Your task to perform on an android device: toggle javascript in the chrome app Image 0: 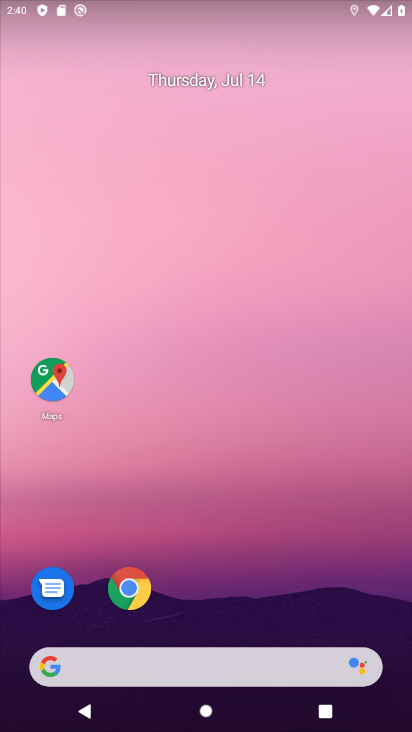
Step 0: drag from (224, 638) to (126, 18)
Your task to perform on an android device: toggle javascript in the chrome app Image 1: 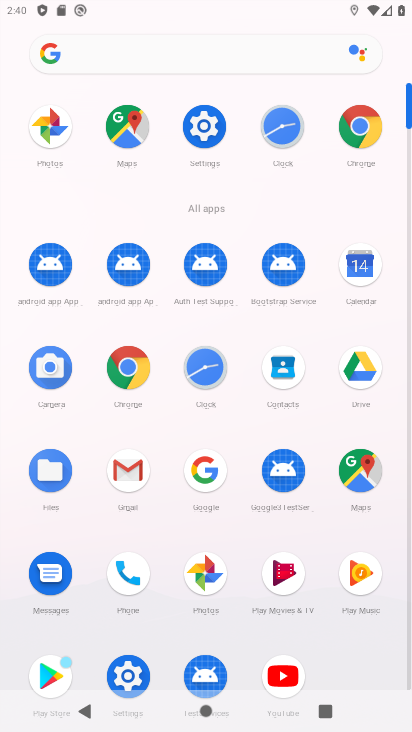
Step 1: click (128, 372)
Your task to perform on an android device: toggle javascript in the chrome app Image 2: 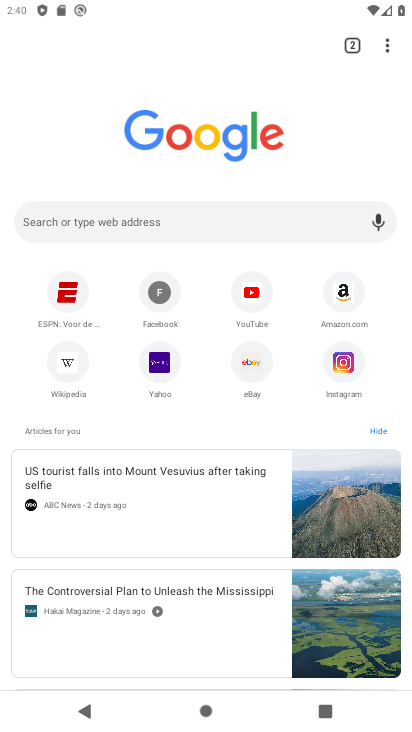
Step 2: click (387, 38)
Your task to perform on an android device: toggle javascript in the chrome app Image 3: 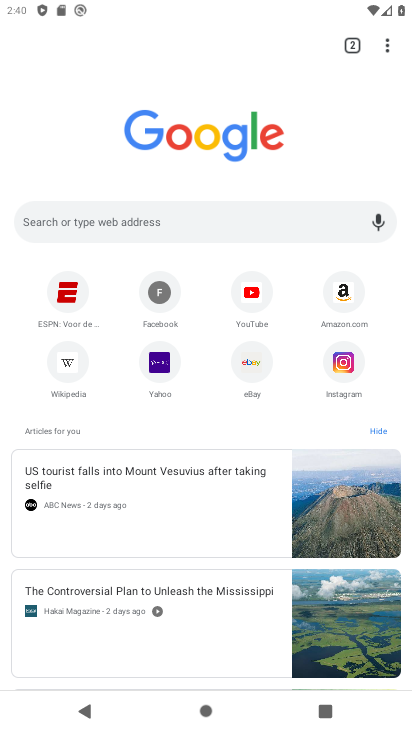
Step 3: drag from (384, 43) to (227, 376)
Your task to perform on an android device: toggle javascript in the chrome app Image 4: 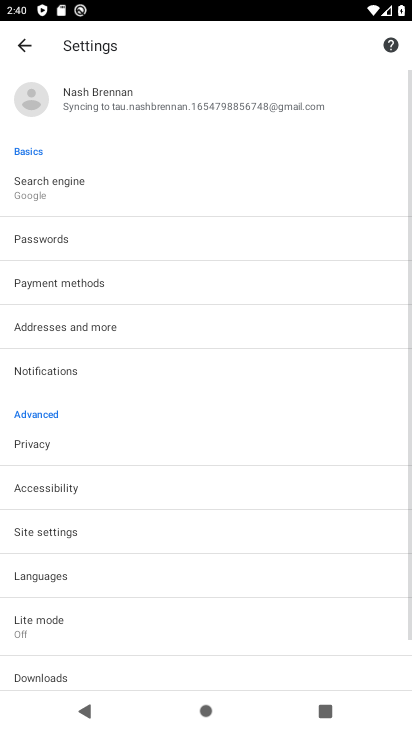
Step 4: click (70, 537)
Your task to perform on an android device: toggle javascript in the chrome app Image 5: 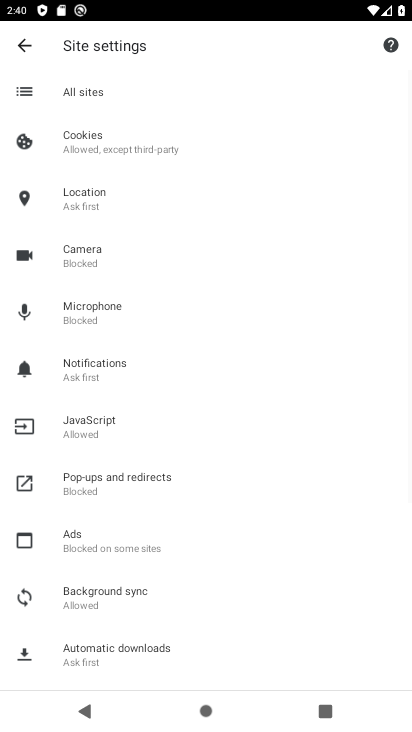
Step 5: click (104, 429)
Your task to perform on an android device: toggle javascript in the chrome app Image 6: 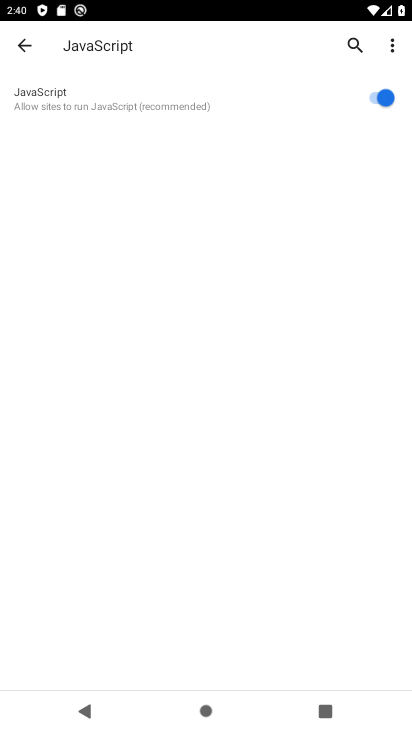
Step 6: click (376, 101)
Your task to perform on an android device: toggle javascript in the chrome app Image 7: 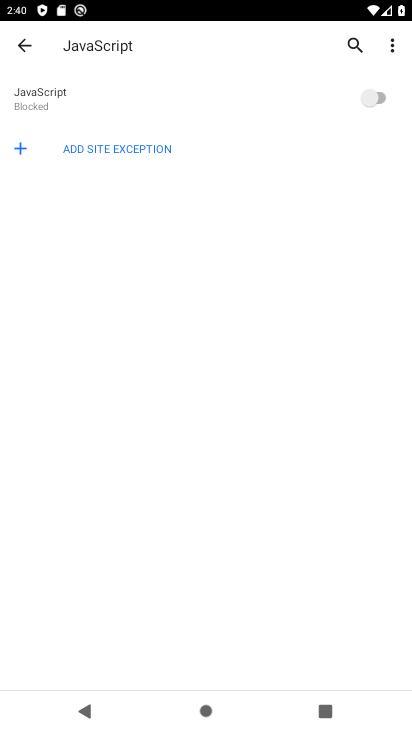
Step 7: task complete